Your task to perform on an android device: Set the phone to "Do not disturb". Image 0: 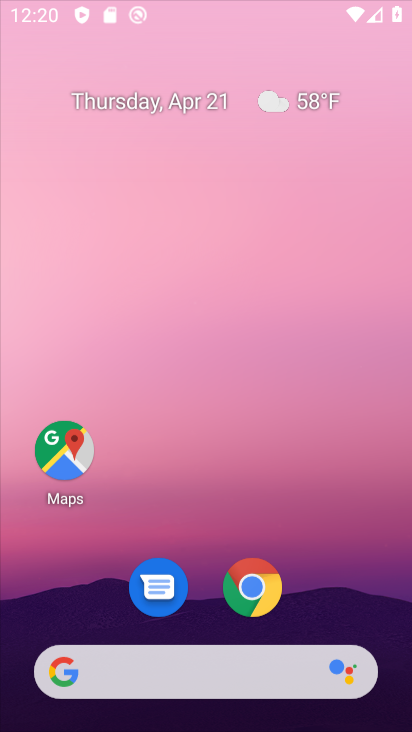
Step 0: click (250, 578)
Your task to perform on an android device: Set the phone to "Do not disturb". Image 1: 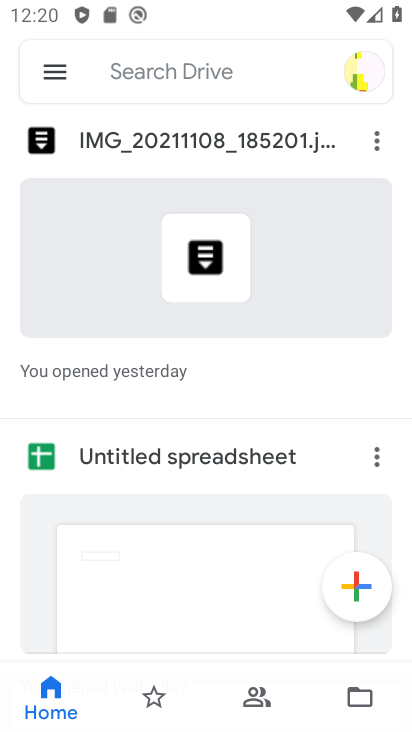
Step 1: press home button
Your task to perform on an android device: Set the phone to "Do not disturb". Image 2: 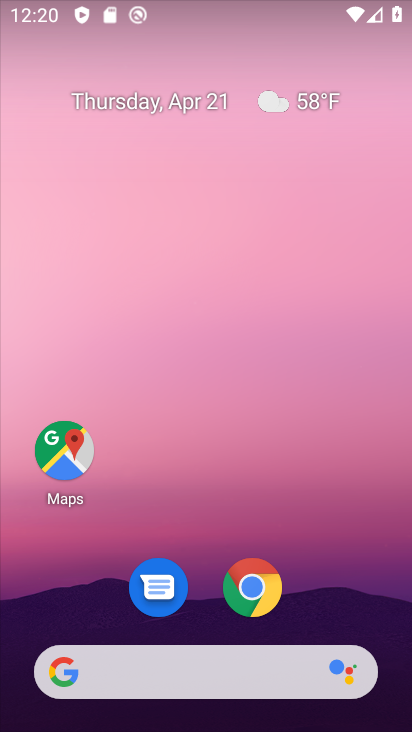
Step 2: drag from (215, 630) to (365, 13)
Your task to perform on an android device: Set the phone to "Do not disturb". Image 3: 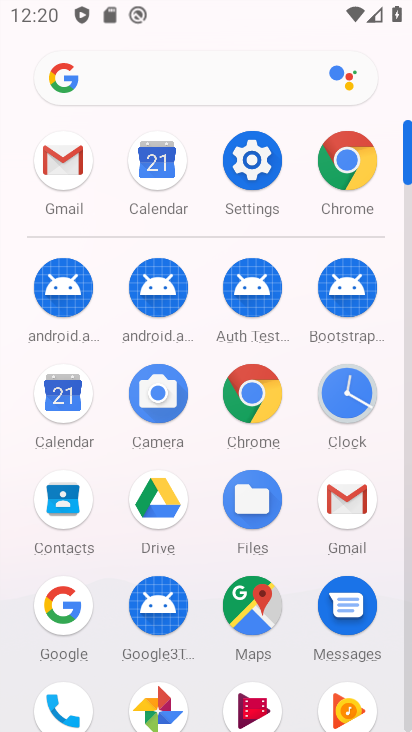
Step 3: click (251, 164)
Your task to perform on an android device: Set the phone to "Do not disturb". Image 4: 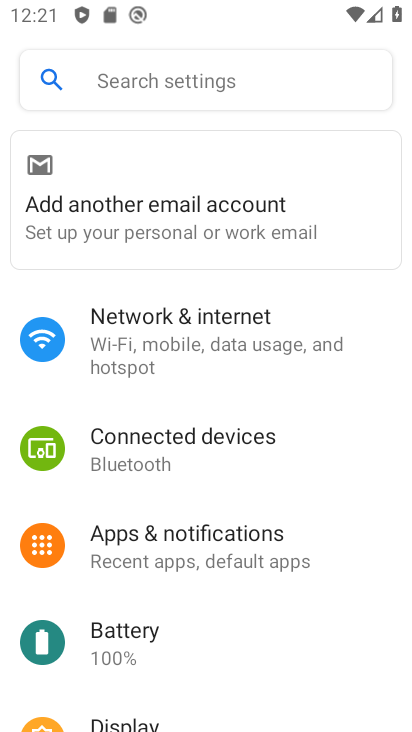
Step 4: drag from (172, 577) to (250, 150)
Your task to perform on an android device: Set the phone to "Do not disturb". Image 5: 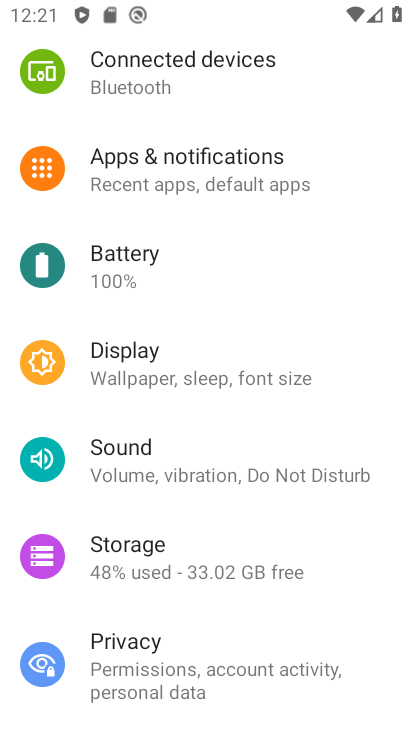
Step 5: click (153, 463)
Your task to perform on an android device: Set the phone to "Do not disturb". Image 6: 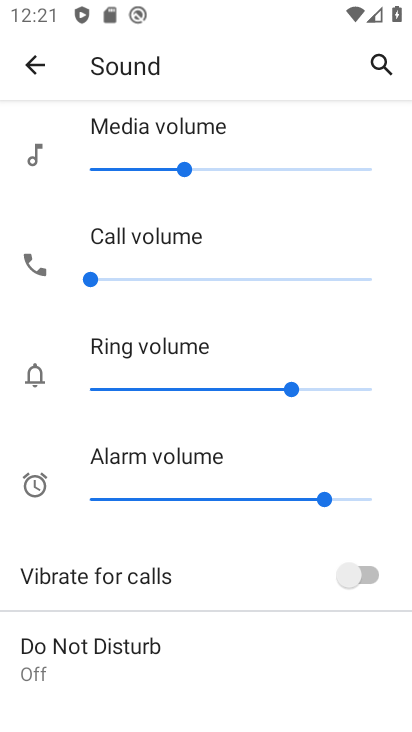
Step 6: click (125, 646)
Your task to perform on an android device: Set the phone to "Do not disturb". Image 7: 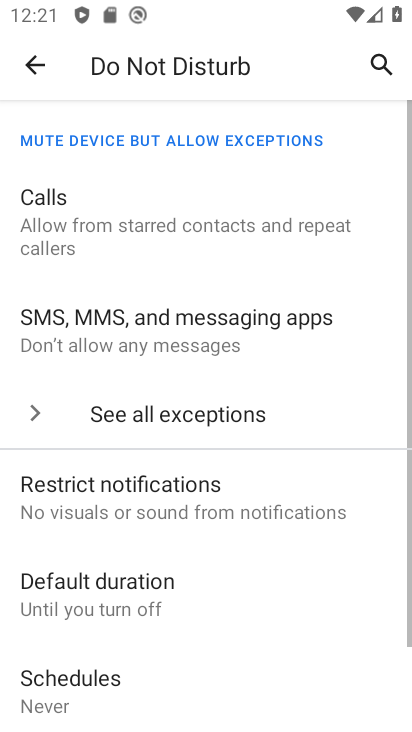
Step 7: drag from (148, 643) to (225, 152)
Your task to perform on an android device: Set the phone to "Do not disturb". Image 8: 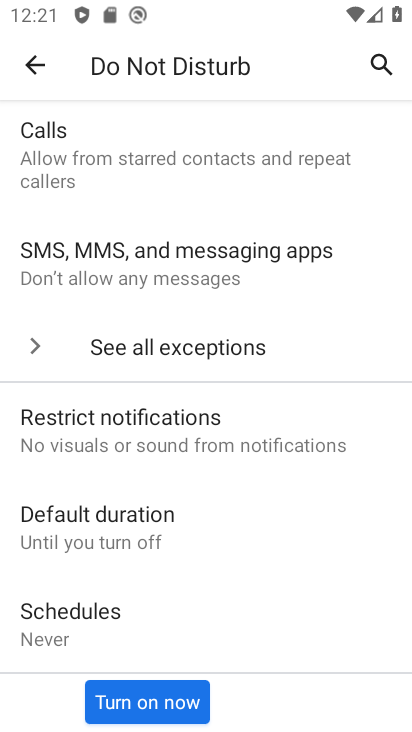
Step 8: click (147, 697)
Your task to perform on an android device: Set the phone to "Do not disturb". Image 9: 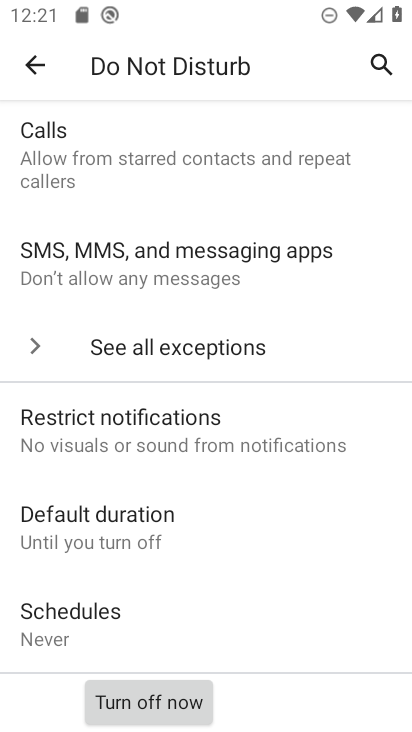
Step 9: task complete